Your task to perform on an android device: Go to Maps Image 0: 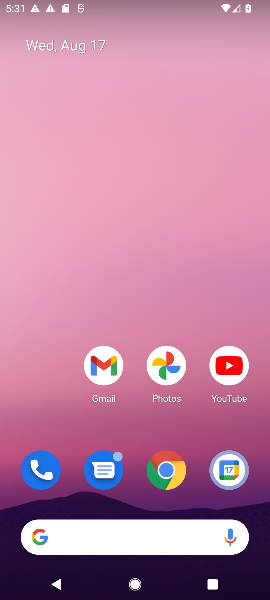
Step 0: drag from (127, 500) to (141, 142)
Your task to perform on an android device: Go to Maps Image 1: 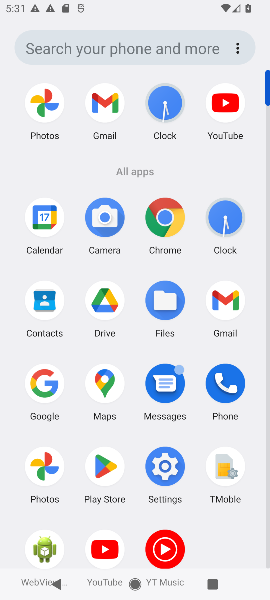
Step 1: click (94, 395)
Your task to perform on an android device: Go to Maps Image 2: 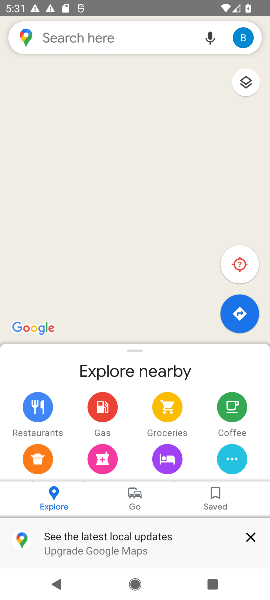
Step 2: task complete